Your task to perform on an android device: refresh tabs in the chrome app Image 0: 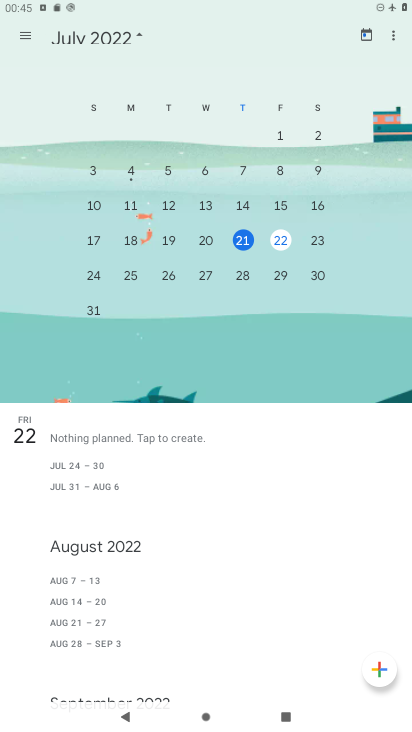
Step 0: press home button
Your task to perform on an android device: refresh tabs in the chrome app Image 1: 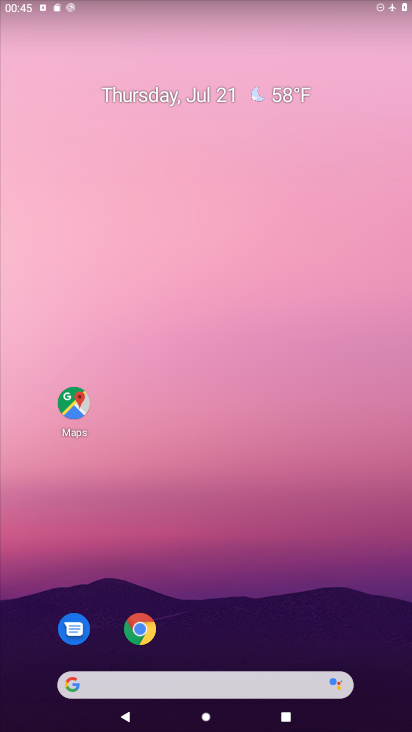
Step 1: click (130, 631)
Your task to perform on an android device: refresh tabs in the chrome app Image 2: 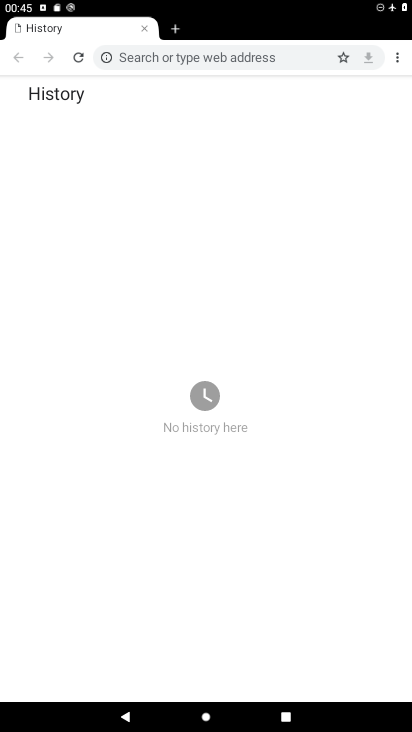
Step 2: click (402, 55)
Your task to perform on an android device: refresh tabs in the chrome app Image 3: 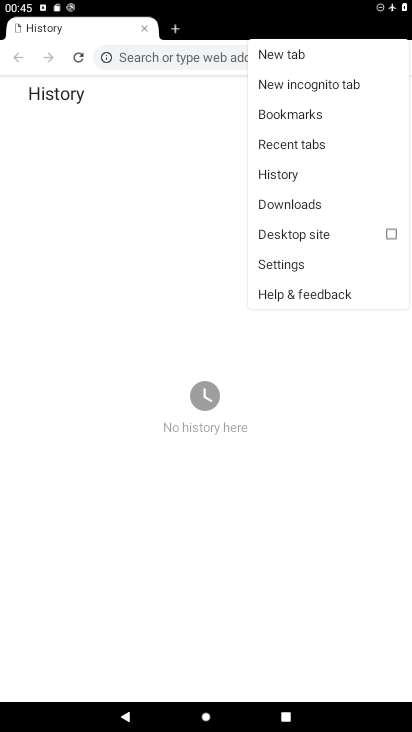
Step 3: click (121, 177)
Your task to perform on an android device: refresh tabs in the chrome app Image 4: 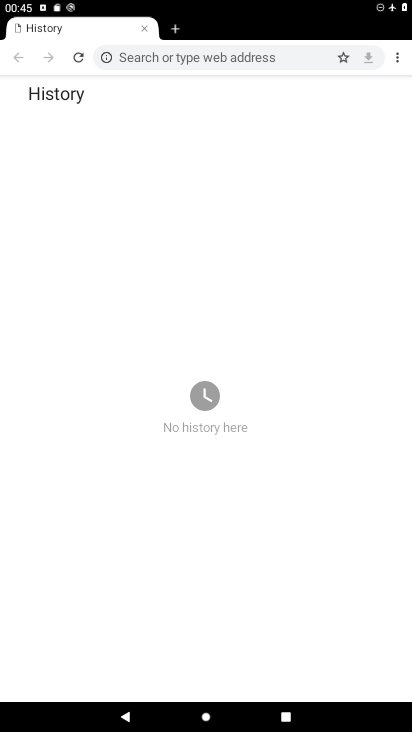
Step 4: click (78, 58)
Your task to perform on an android device: refresh tabs in the chrome app Image 5: 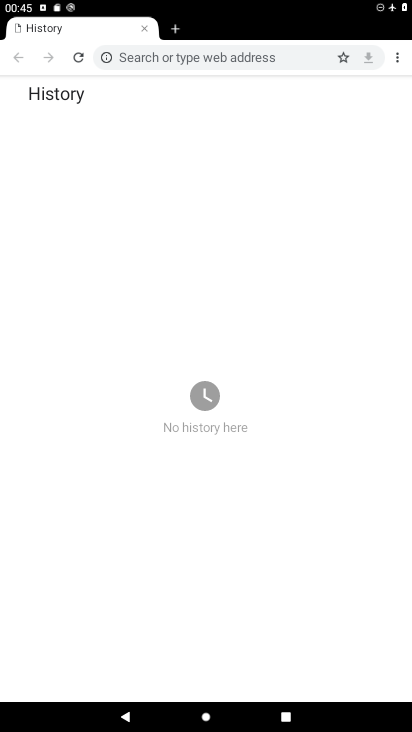
Step 5: task complete